Your task to perform on an android device: turn off sleep mode Image 0: 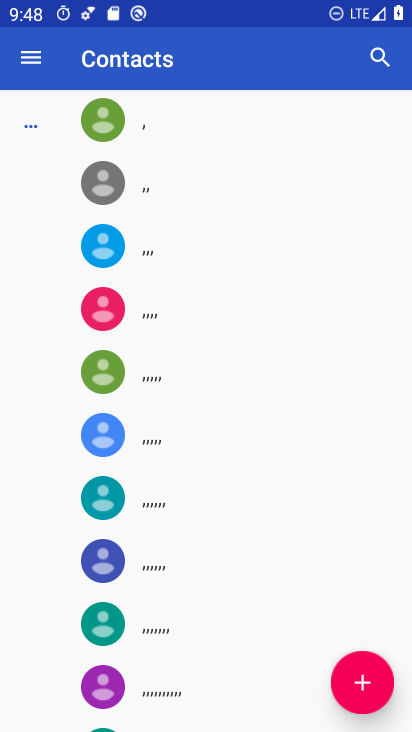
Step 0: press home button
Your task to perform on an android device: turn off sleep mode Image 1: 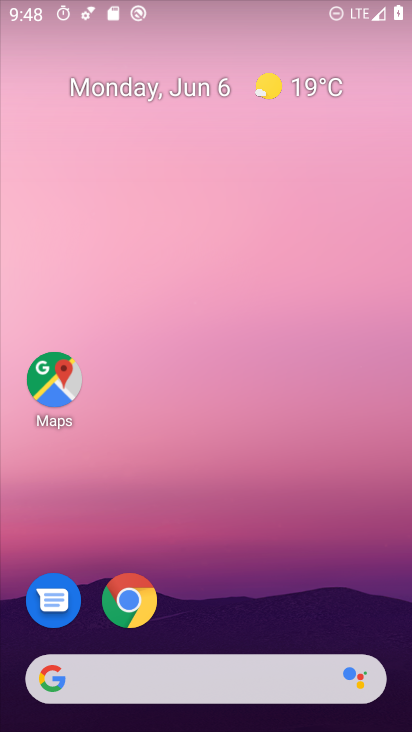
Step 1: drag from (298, 568) to (215, 15)
Your task to perform on an android device: turn off sleep mode Image 2: 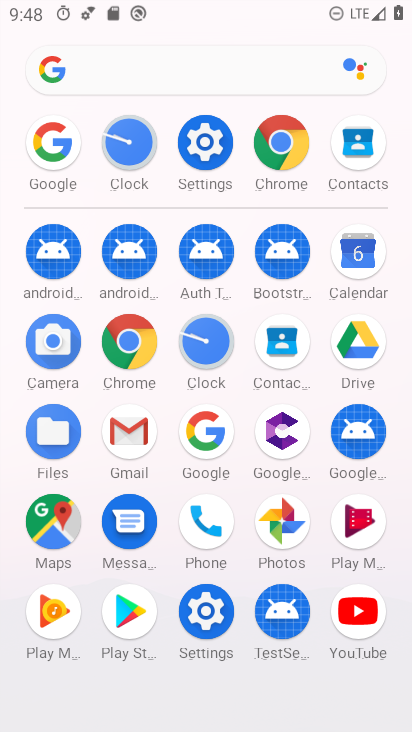
Step 2: click (204, 157)
Your task to perform on an android device: turn off sleep mode Image 3: 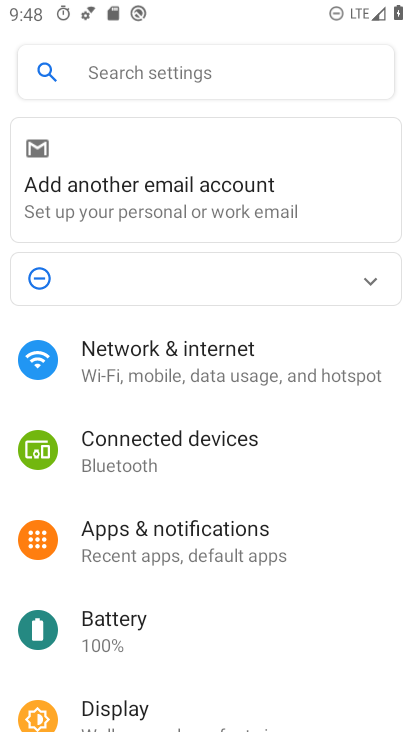
Step 3: click (172, 706)
Your task to perform on an android device: turn off sleep mode Image 4: 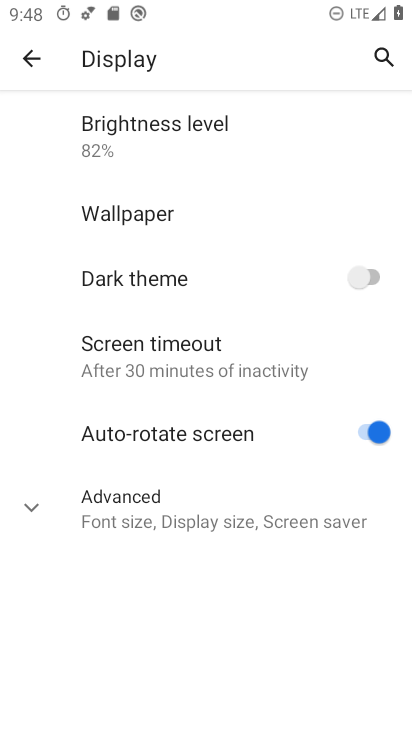
Step 4: task complete